Your task to perform on an android device: toggle data saver in the chrome app Image 0: 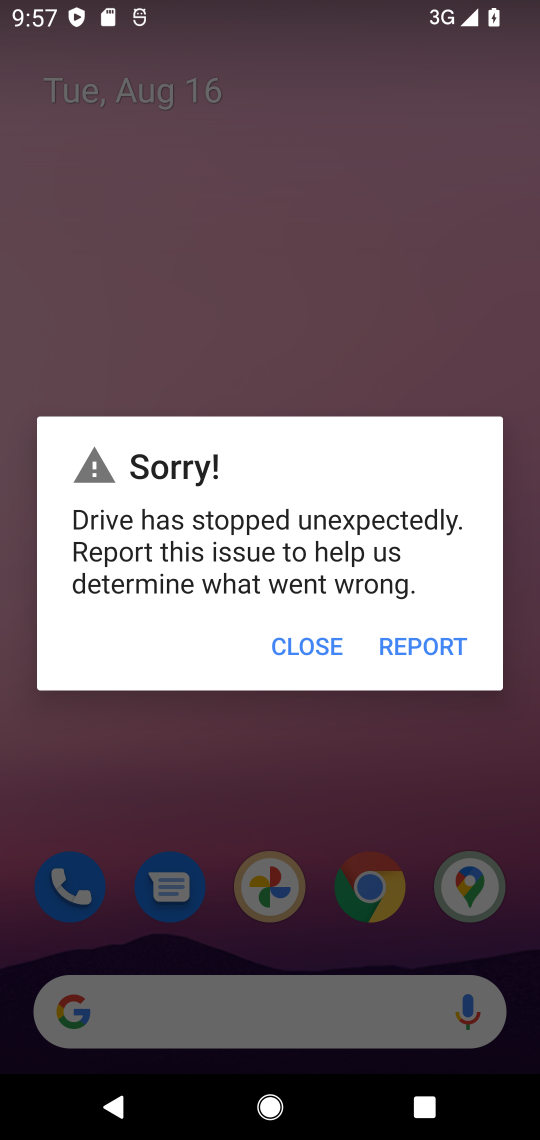
Step 0: press home button
Your task to perform on an android device: toggle data saver in the chrome app Image 1: 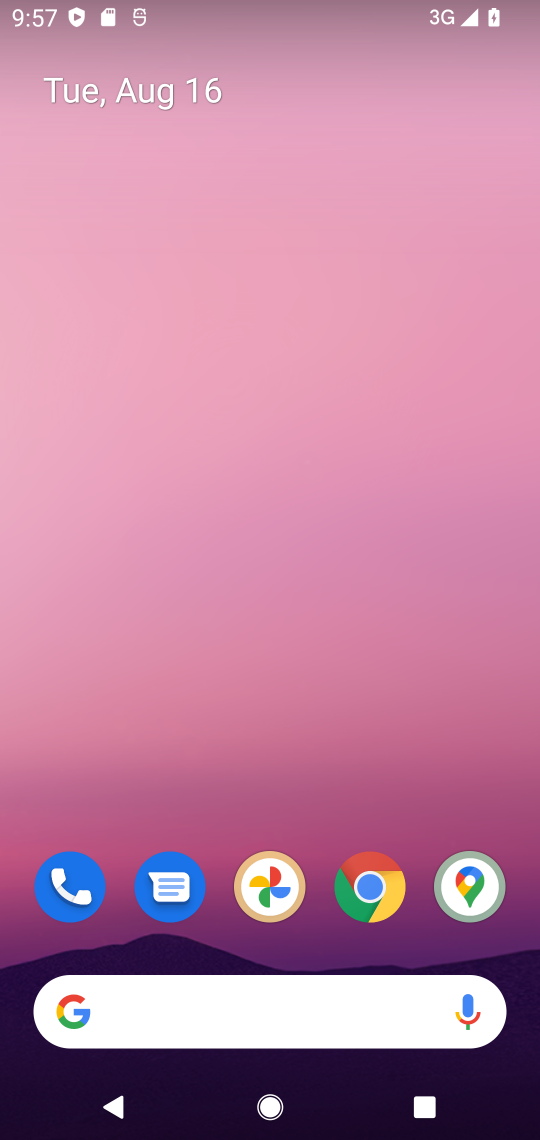
Step 1: drag from (411, 799) to (427, 215)
Your task to perform on an android device: toggle data saver in the chrome app Image 2: 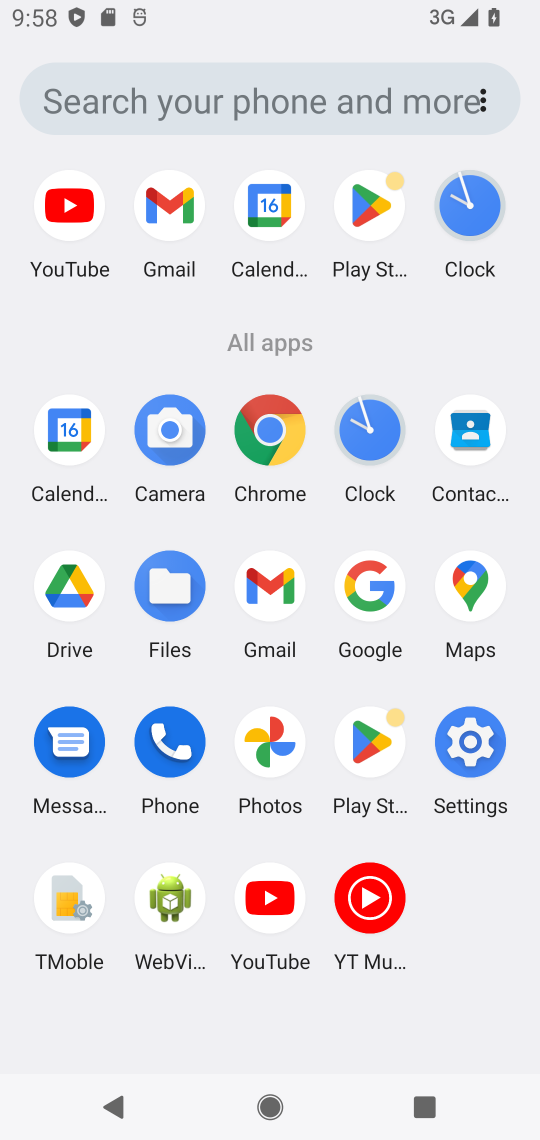
Step 2: click (267, 425)
Your task to perform on an android device: toggle data saver in the chrome app Image 3: 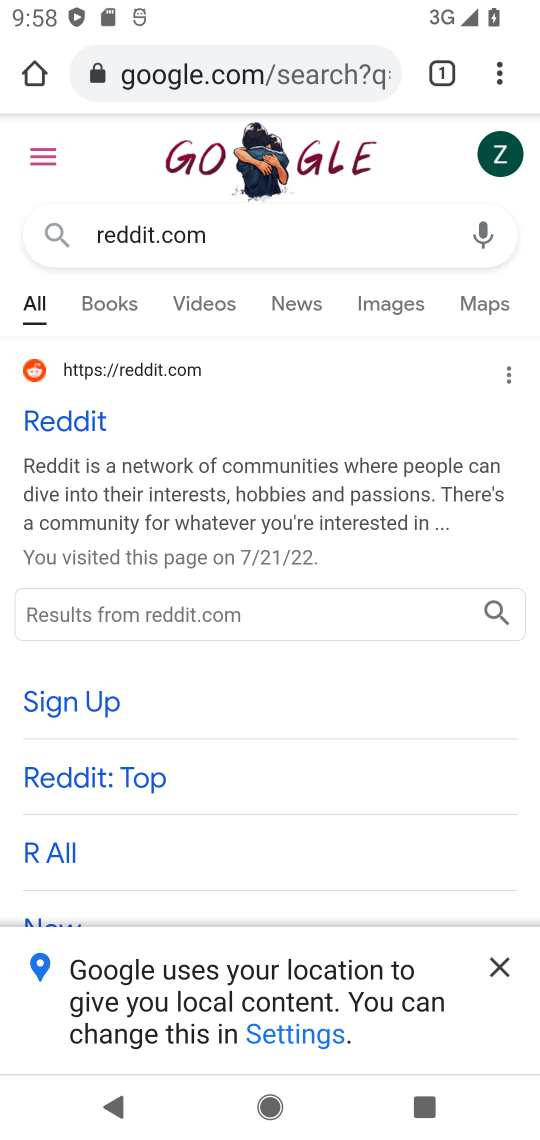
Step 3: click (497, 78)
Your task to perform on an android device: toggle data saver in the chrome app Image 4: 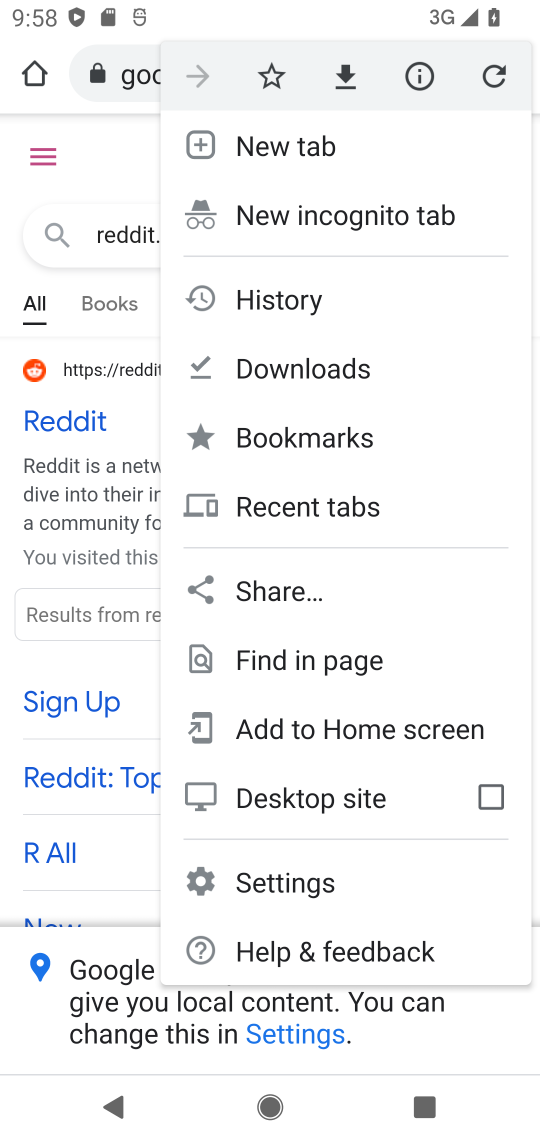
Step 4: click (338, 886)
Your task to perform on an android device: toggle data saver in the chrome app Image 5: 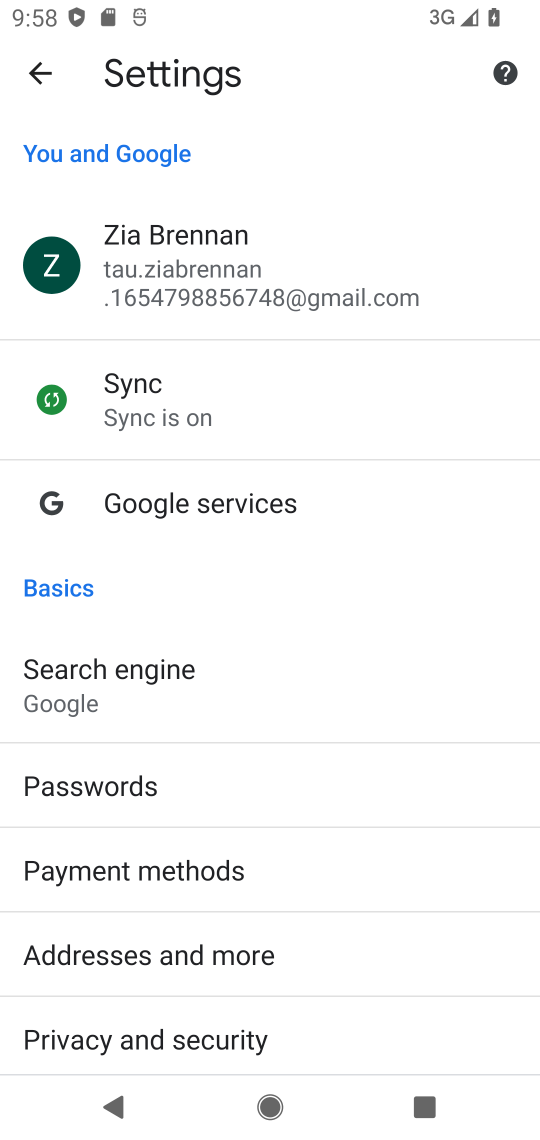
Step 5: drag from (445, 1002) to (497, 744)
Your task to perform on an android device: toggle data saver in the chrome app Image 6: 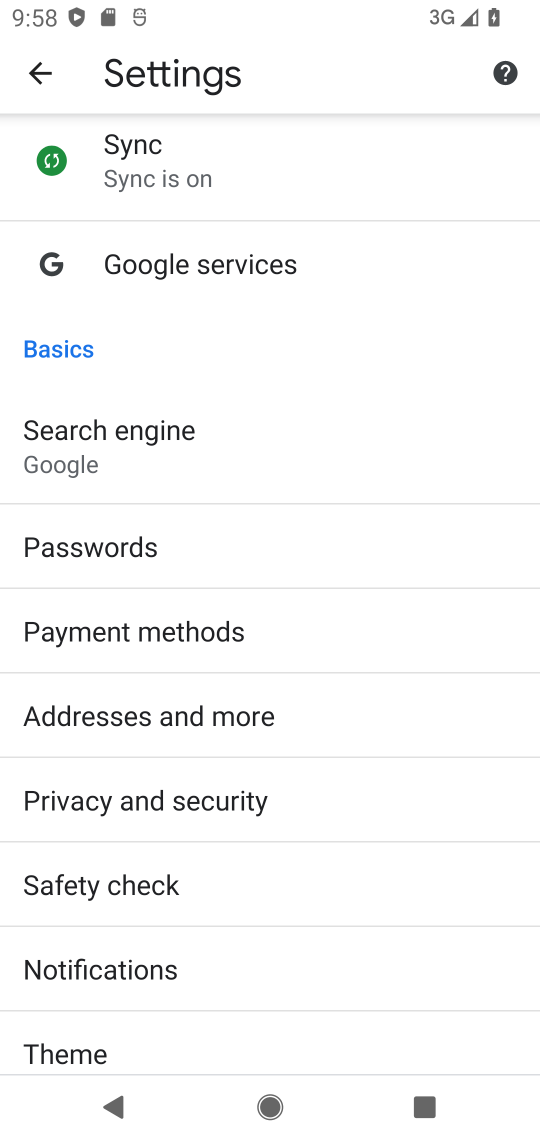
Step 6: drag from (403, 971) to (376, 789)
Your task to perform on an android device: toggle data saver in the chrome app Image 7: 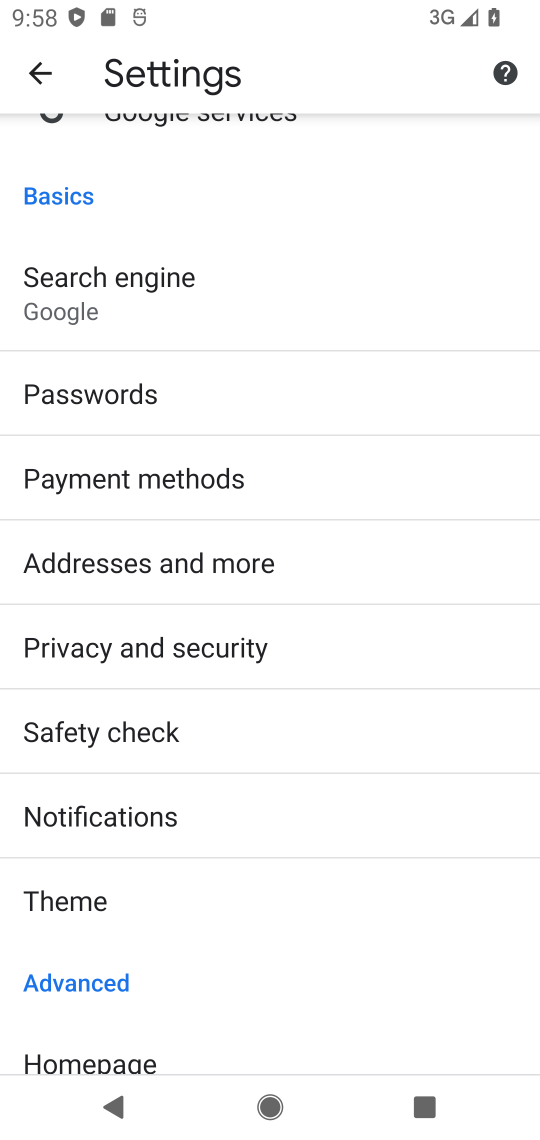
Step 7: drag from (334, 951) to (373, 744)
Your task to perform on an android device: toggle data saver in the chrome app Image 8: 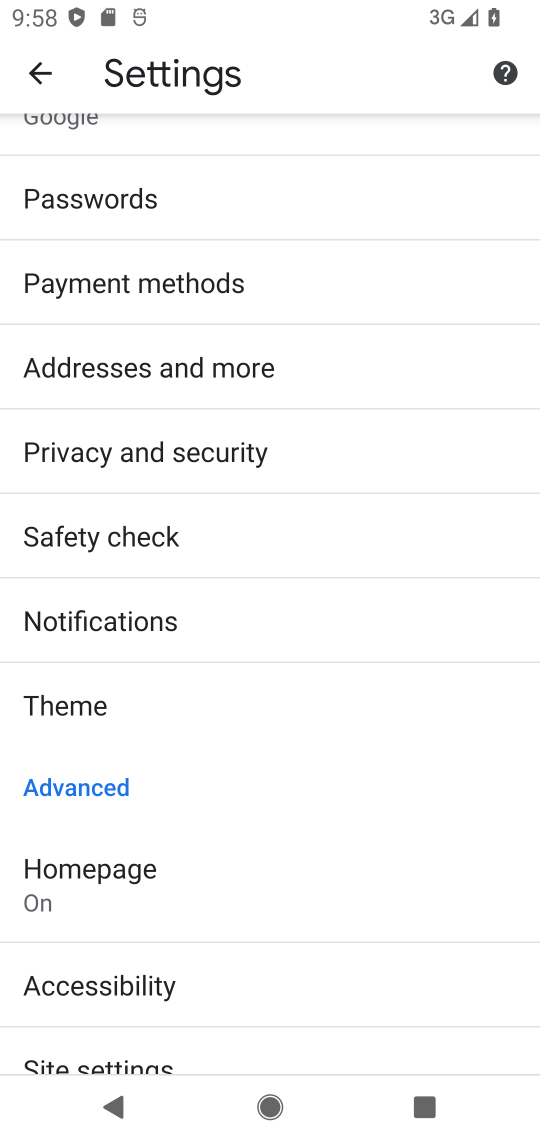
Step 8: drag from (334, 961) to (334, 719)
Your task to perform on an android device: toggle data saver in the chrome app Image 9: 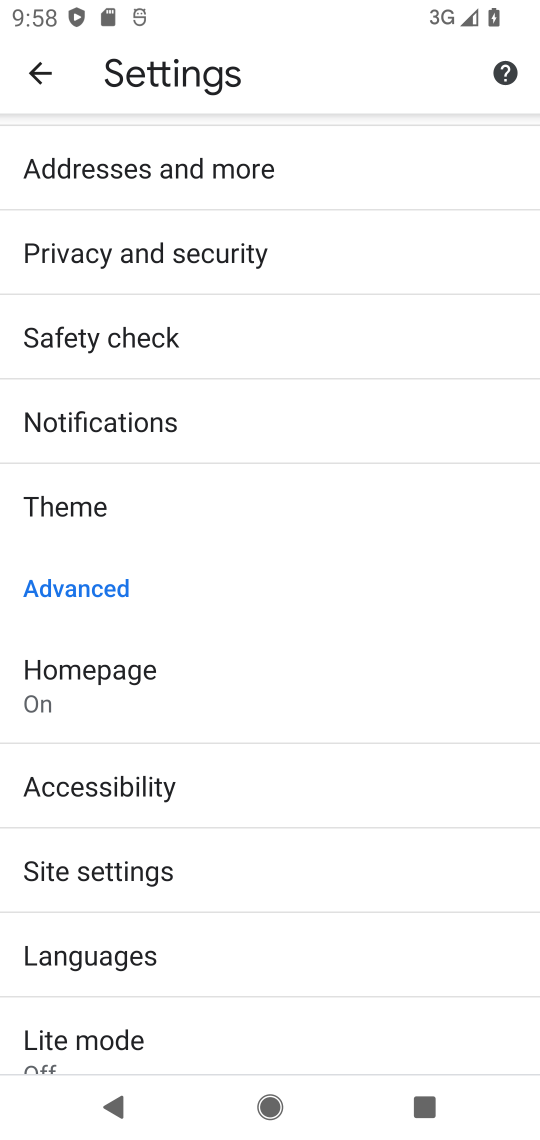
Step 9: drag from (304, 933) to (335, 738)
Your task to perform on an android device: toggle data saver in the chrome app Image 10: 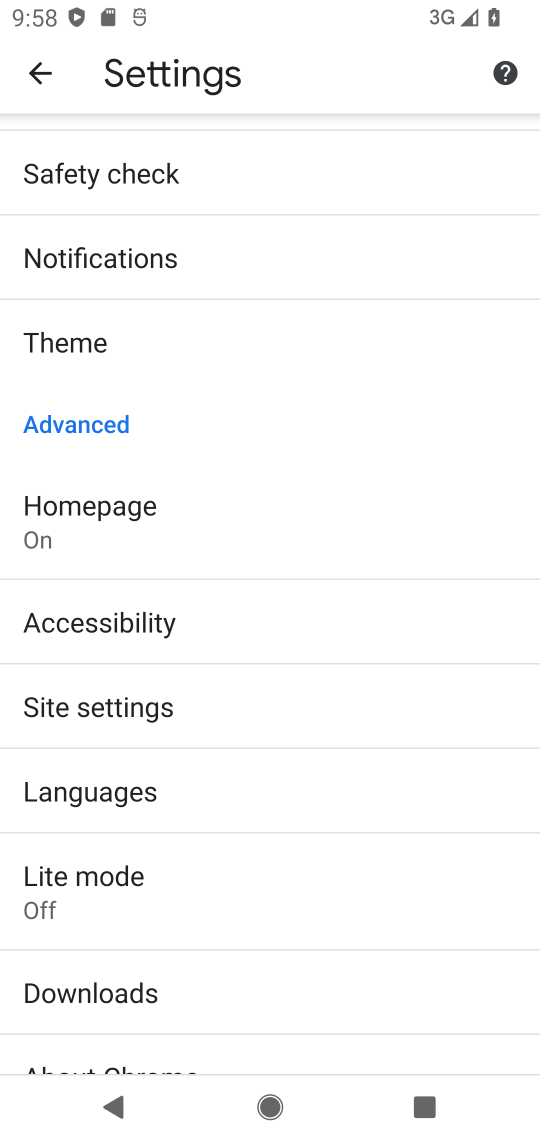
Step 10: click (311, 890)
Your task to perform on an android device: toggle data saver in the chrome app Image 11: 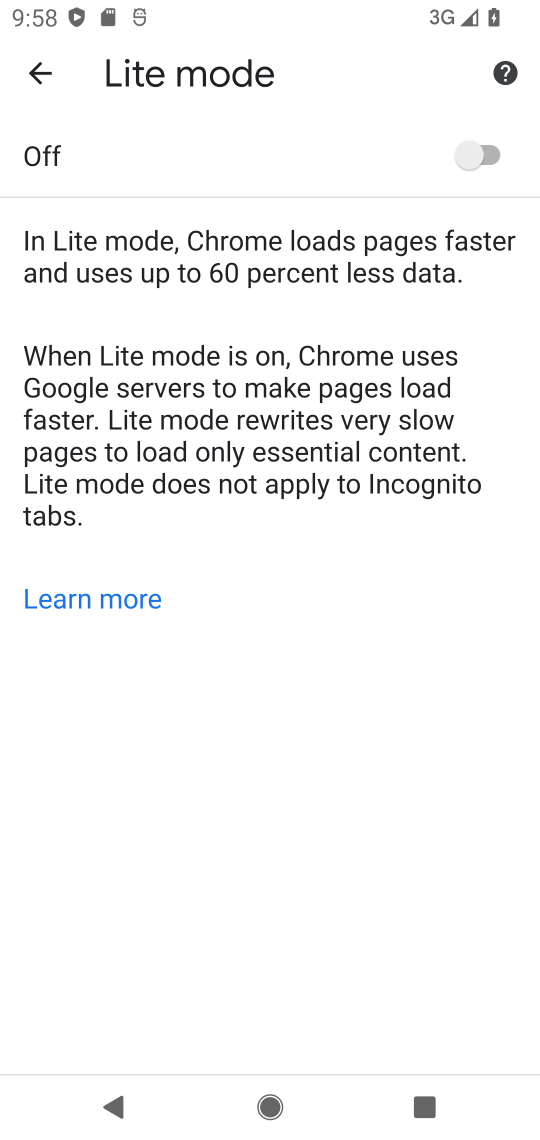
Step 11: click (465, 156)
Your task to perform on an android device: toggle data saver in the chrome app Image 12: 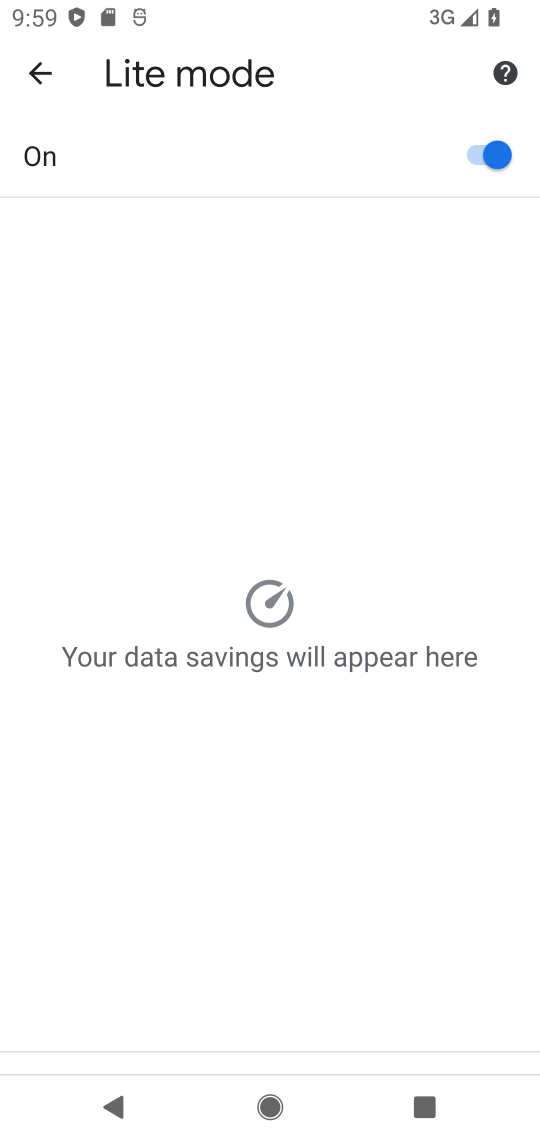
Step 12: task complete